Your task to perform on an android device: turn on bluetooth scan Image 0: 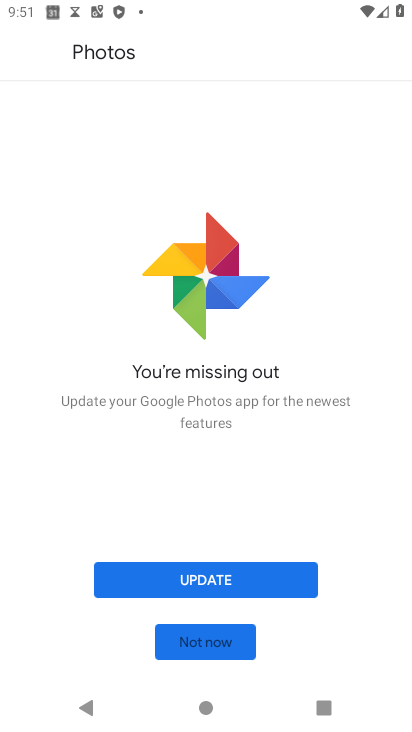
Step 0: press back button
Your task to perform on an android device: turn on bluetooth scan Image 1: 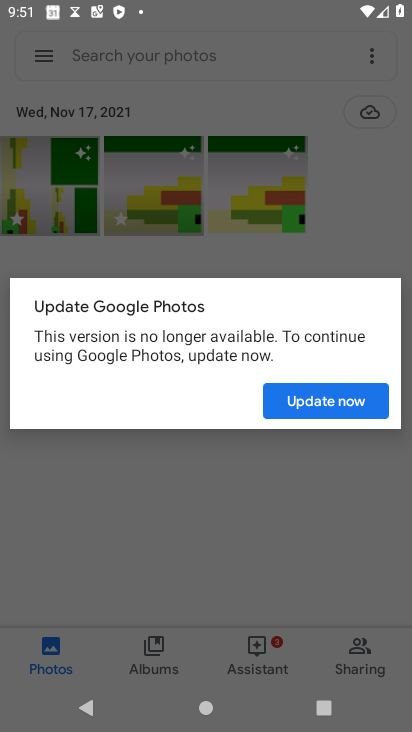
Step 1: press home button
Your task to perform on an android device: turn on bluetooth scan Image 2: 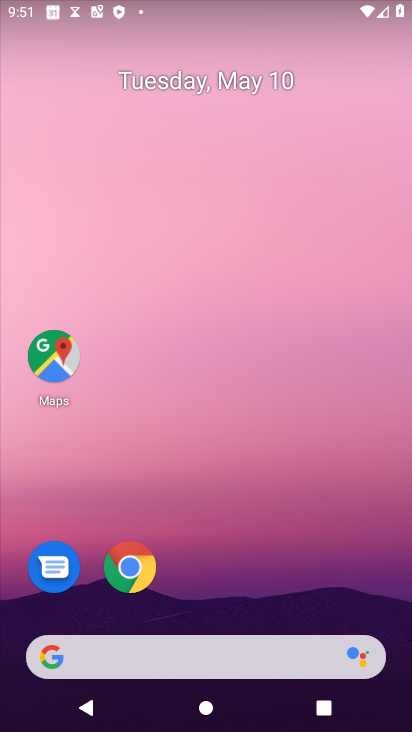
Step 2: drag from (21, 674) to (281, 143)
Your task to perform on an android device: turn on bluetooth scan Image 3: 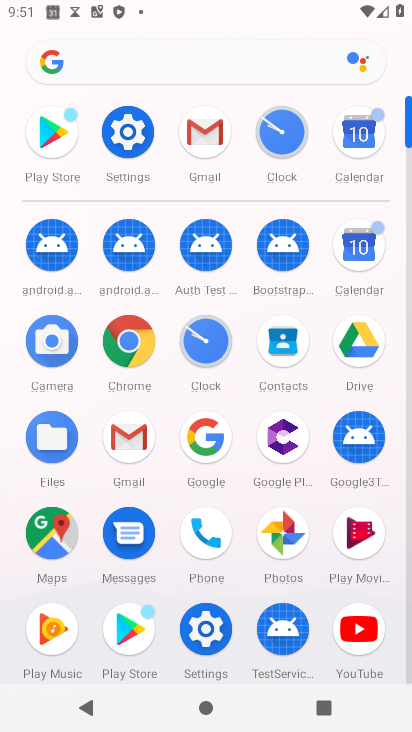
Step 3: click (128, 136)
Your task to perform on an android device: turn on bluetooth scan Image 4: 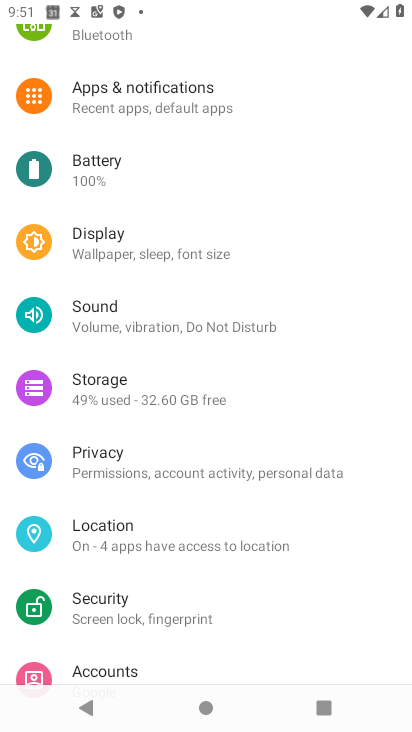
Step 4: click (155, 521)
Your task to perform on an android device: turn on bluetooth scan Image 5: 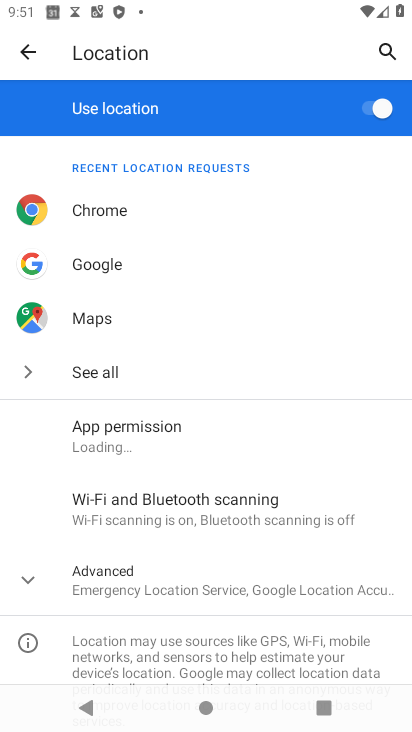
Step 5: click (282, 506)
Your task to perform on an android device: turn on bluetooth scan Image 6: 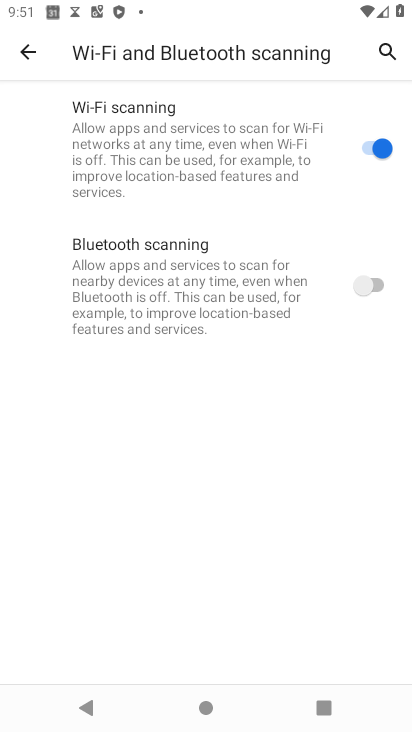
Step 6: click (372, 284)
Your task to perform on an android device: turn on bluetooth scan Image 7: 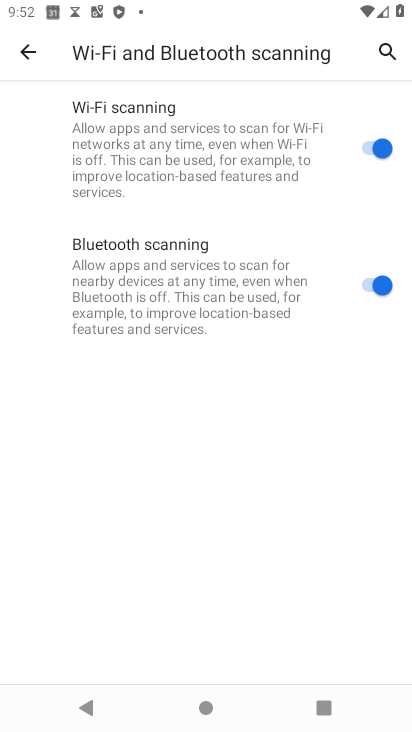
Step 7: task complete